Your task to perform on an android device: Go to accessibility settings Image 0: 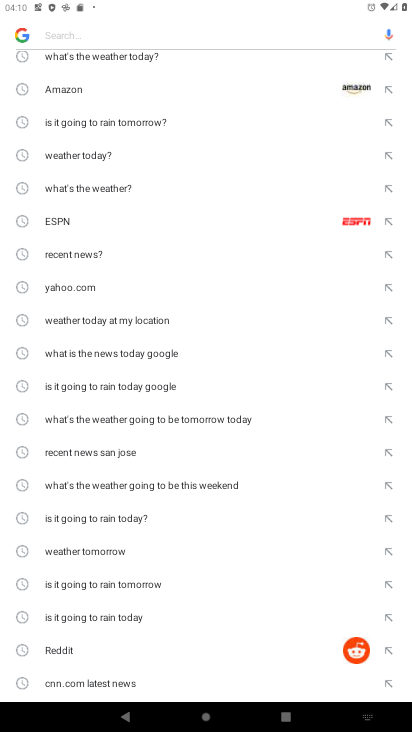
Step 0: press home button
Your task to perform on an android device: Go to accessibility settings Image 1: 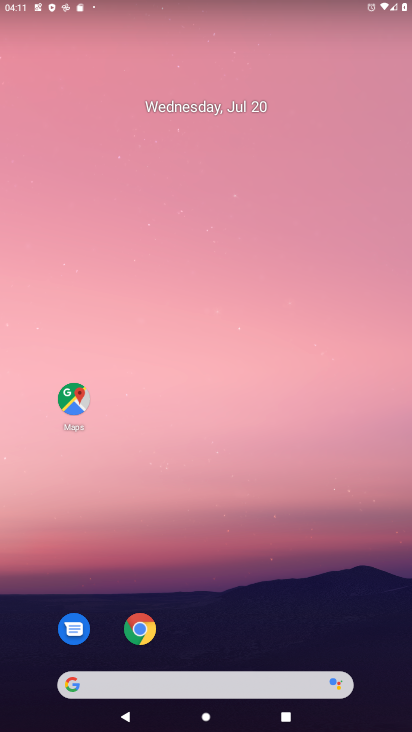
Step 1: drag from (376, 655) to (321, 116)
Your task to perform on an android device: Go to accessibility settings Image 2: 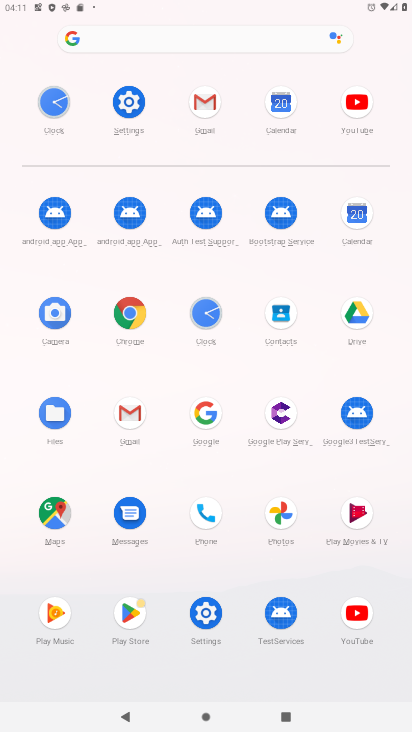
Step 2: click (205, 614)
Your task to perform on an android device: Go to accessibility settings Image 3: 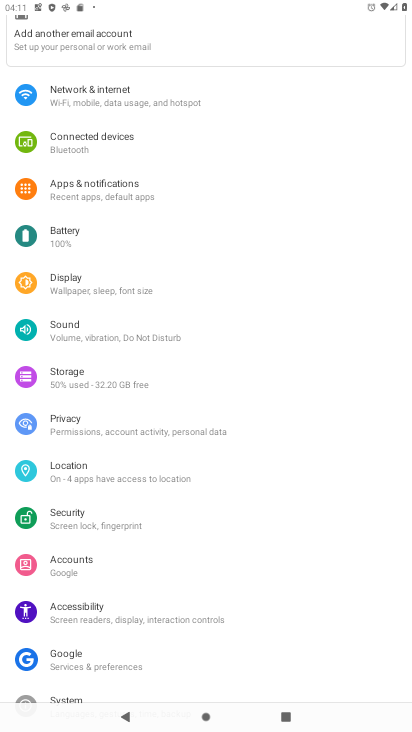
Step 3: click (80, 603)
Your task to perform on an android device: Go to accessibility settings Image 4: 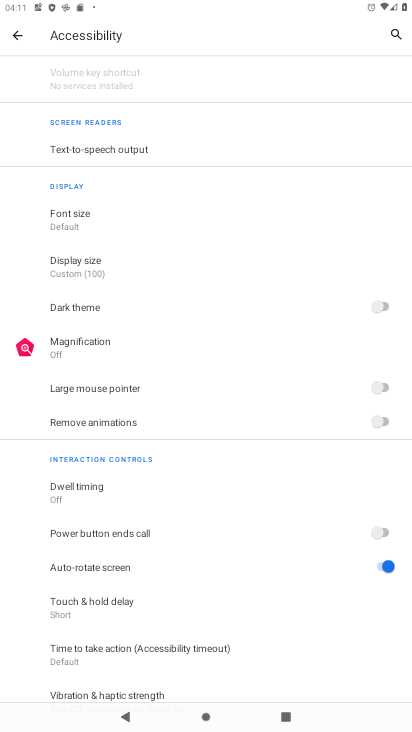
Step 4: task complete